Your task to perform on an android device: Show me popular games on the Play Store Image 0: 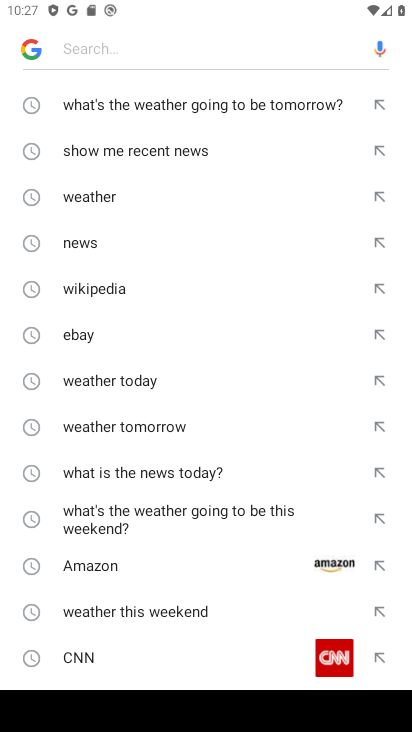
Step 0: press home button
Your task to perform on an android device: Show me popular games on the Play Store Image 1: 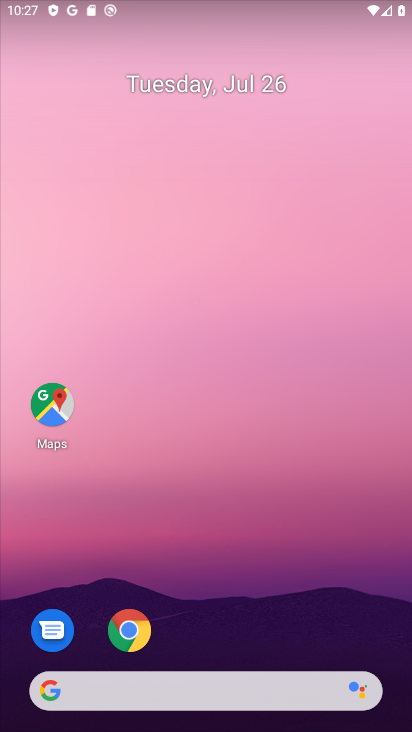
Step 1: drag from (208, 642) to (176, 233)
Your task to perform on an android device: Show me popular games on the Play Store Image 2: 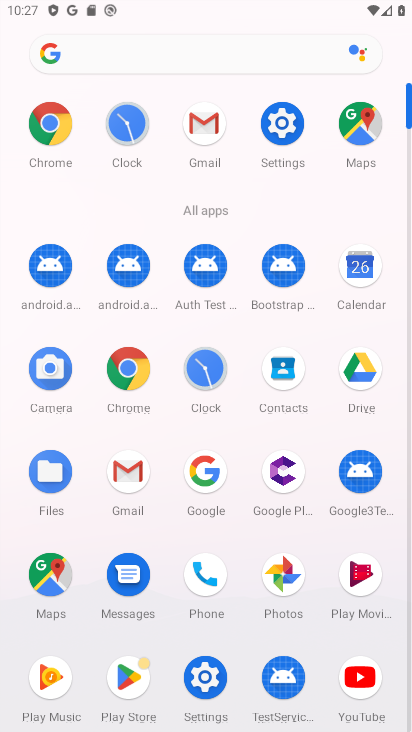
Step 2: click (130, 668)
Your task to perform on an android device: Show me popular games on the Play Store Image 3: 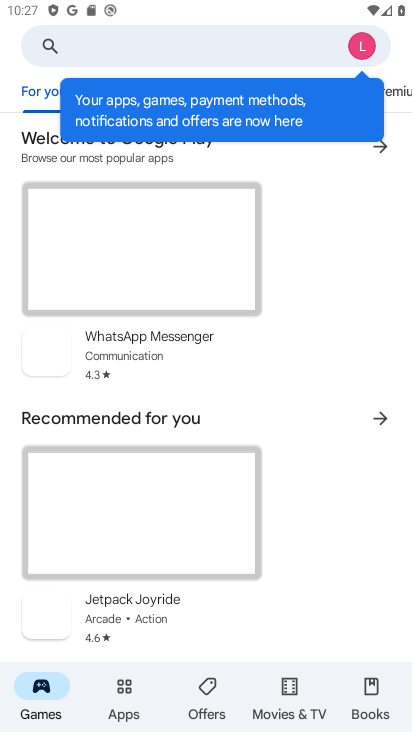
Step 3: task complete